Your task to perform on an android device: Open the calendar app, open the side menu, and click the "Day" option Image 0: 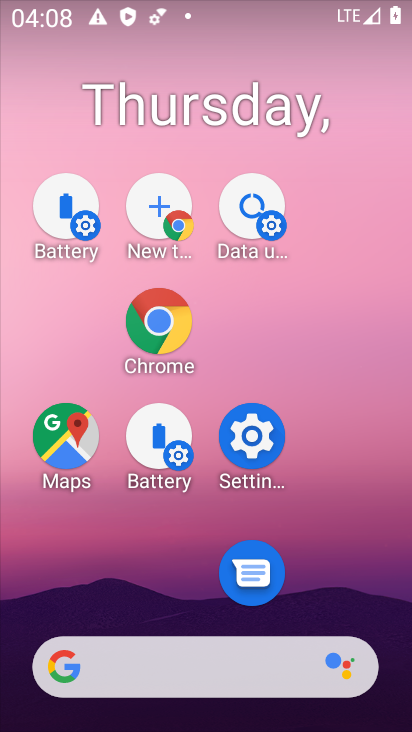
Step 0: drag from (280, 642) to (221, 98)
Your task to perform on an android device: Open the calendar app, open the side menu, and click the "Day" option Image 1: 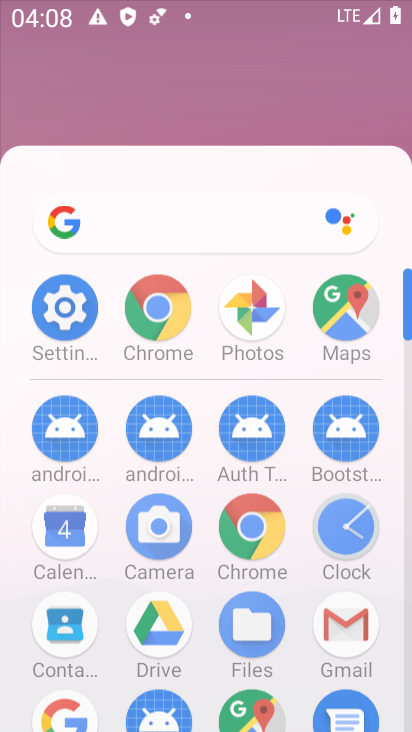
Step 1: drag from (269, 536) to (255, 117)
Your task to perform on an android device: Open the calendar app, open the side menu, and click the "Day" option Image 2: 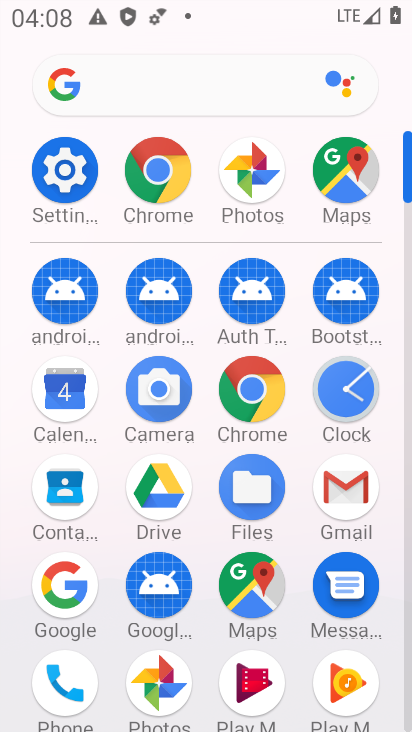
Step 2: drag from (296, 542) to (287, 190)
Your task to perform on an android device: Open the calendar app, open the side menu, and click the "Day" option Image 3: 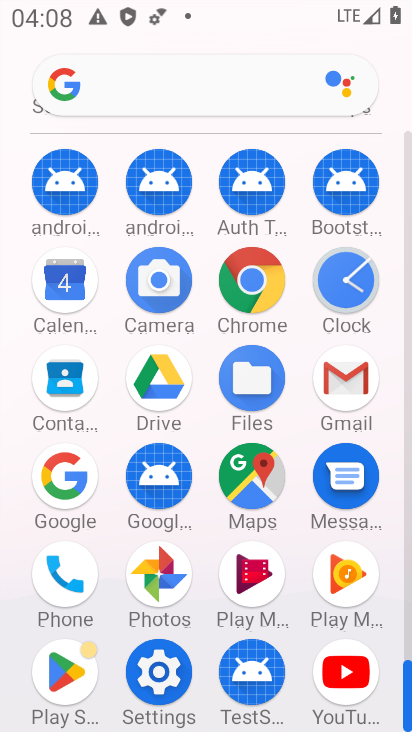
Step 3: click (63, 291)
Your task to perform on an android device: Open the calendar app, open the side menu, and click the "Day" option Image 4: 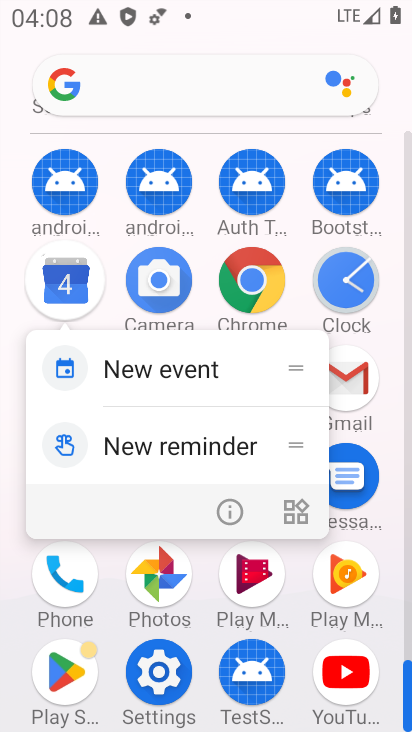
Step 4: click (63, 291)
Your task to perform on an android device: Open the calendar app, open the side menu, and click the "Day" option Image 5: 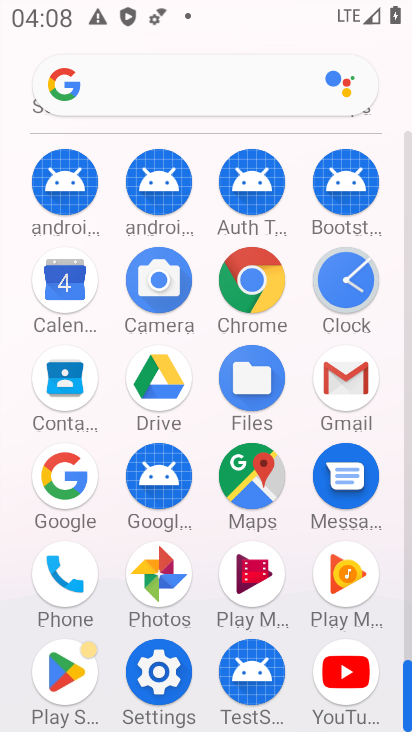
Step 5: click (63, 291)
Your task to perform on an android device: Open the calendar app, open the side menu, and click the "Day" option Image 6: 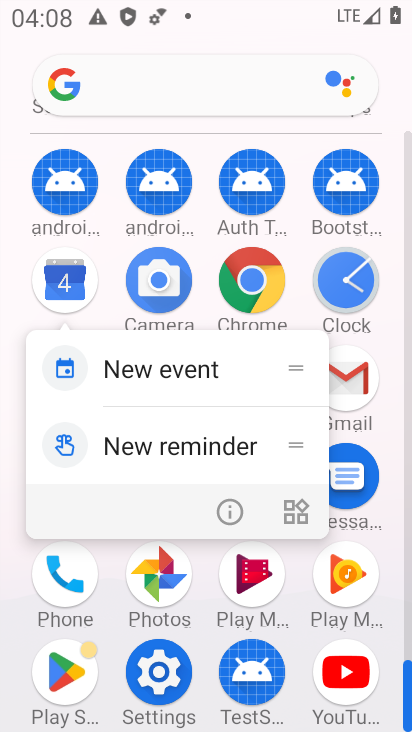
Step 6: click (62, 290)
Your task to perform on an android device: Open the calendar app, open the side menu, and click the "Day" option Image 7: 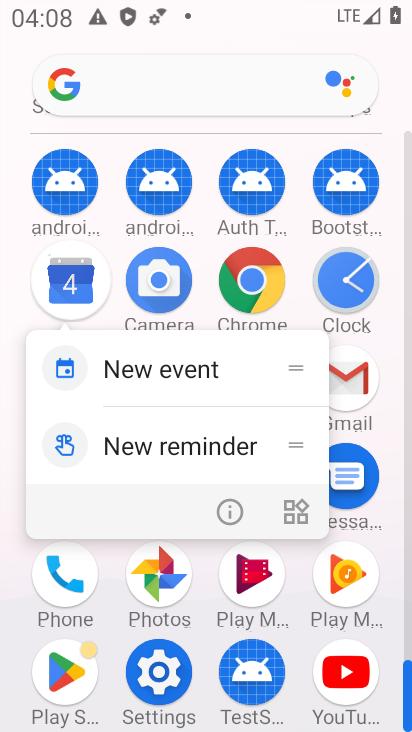
Step 7: click (68, 290)
Your task to perform on an android device: Open the calendar app, open the side menu, and click the "Day" option Image 8: 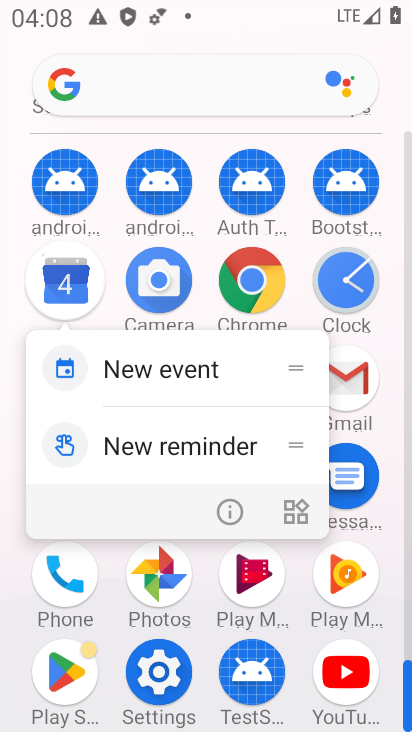
Step 8: click (69, 291)
Your task to perform on an android device: Open the calendar app, open the side menu, and click the "Day" option Image 9: 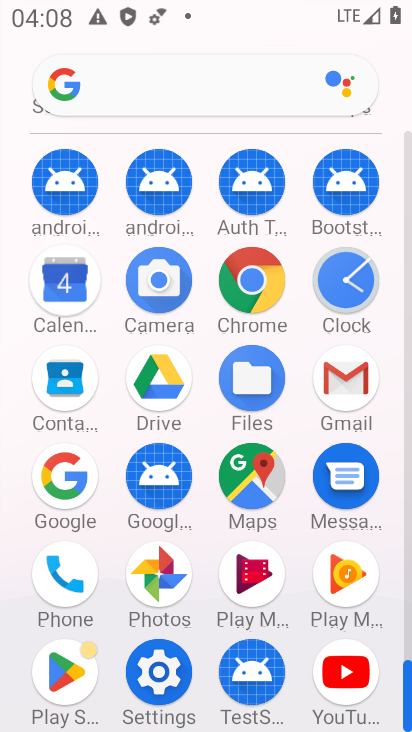
Step 9: click (69, 291)
Your task to perform on an android device: Open the calendar app, open the side menu, and click the "Day" option Image 10: 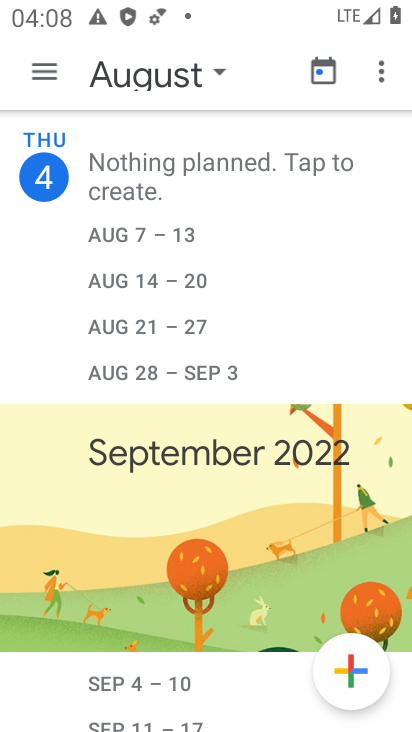
Step 10: click (86, 270)
Your task to perform on an android device: Open the calendar app, open the side menu, and click the "Day" option Image 11: 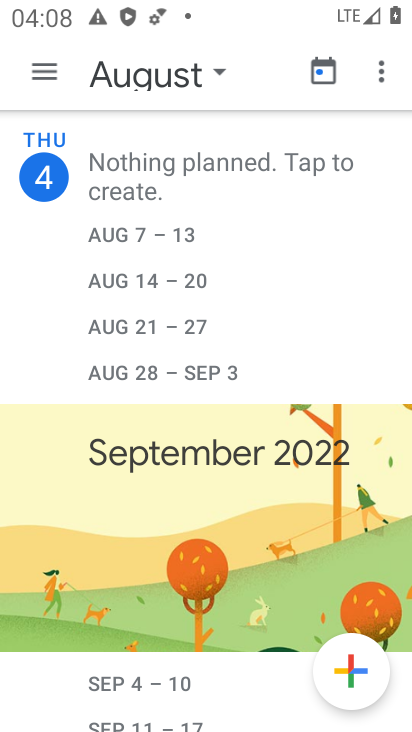
Step 11: click (39, 68)
Your task to perform on an android device: Open the calendar app, open the side menu, and click the "Day" option Image 12: 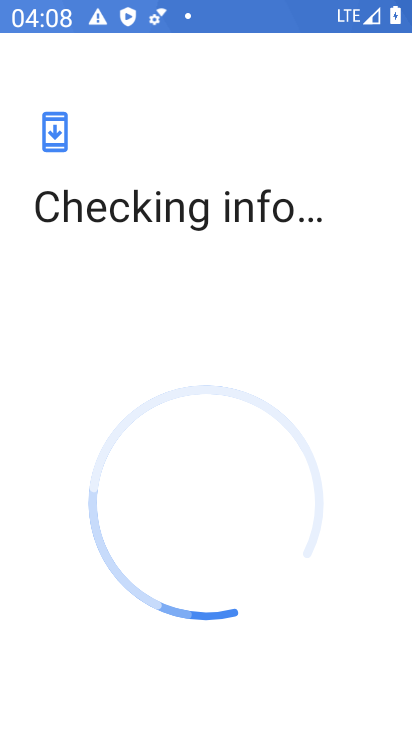
Step 12: press back button
Your task to perform on an android device: Open the calendar app, open the side menu, and click the "Day" option Image 13: 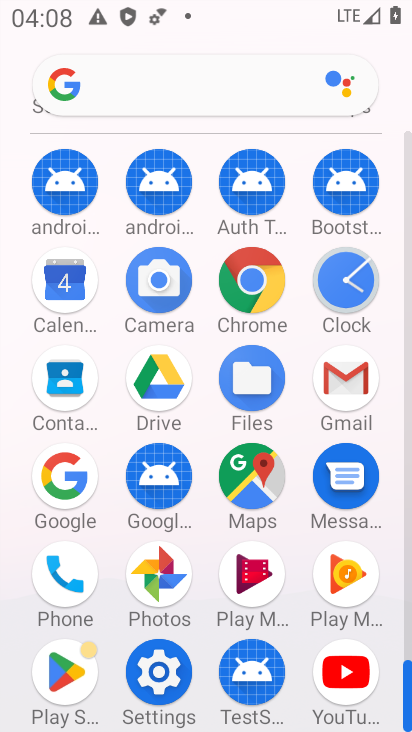
Step 13: click (64, 295)
Your task to perform on an android device: Open the calendar app, open the side menu, and click the "Day" option Image 14: 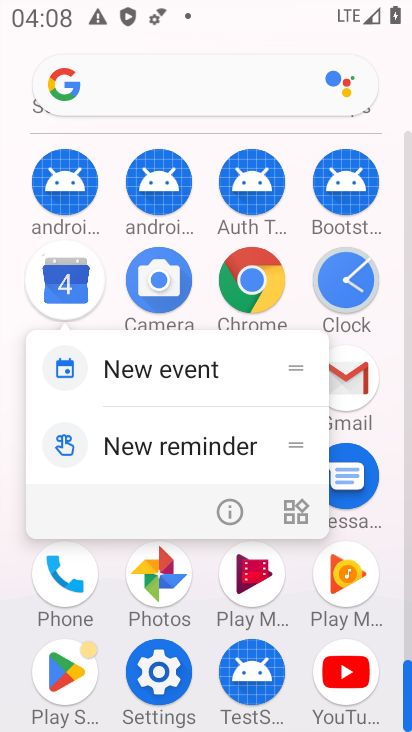
Step 14: click (64, 295)
Your task to perform on an android device: Open the calendar app, open the side menu, and click the "Day" option Image 15: 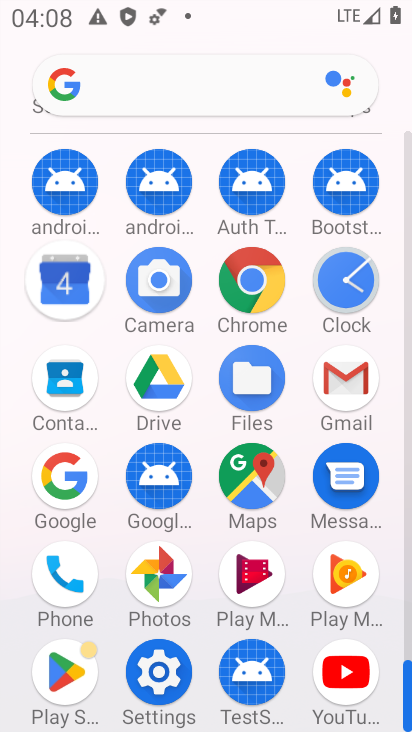
Step 15: click (64, 295)
Your task to perform on an android device: Open the calendar app, open the side menu, and click the "Day" option Image 16: 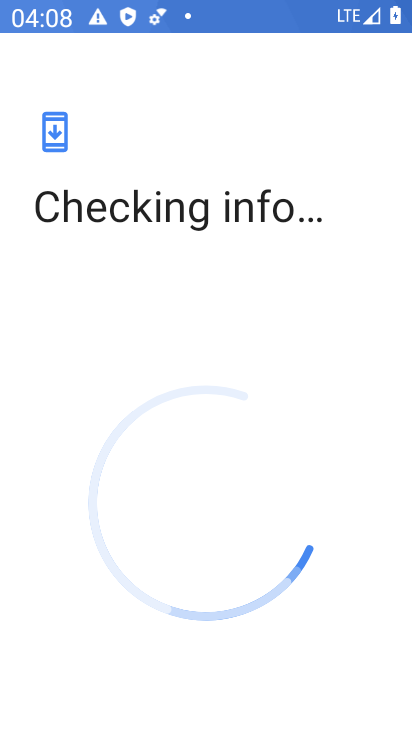
Step 16: press back button
Your task to perform on an android device: Open the calendar app, open the side menu, and click the "Day" option Image 17: 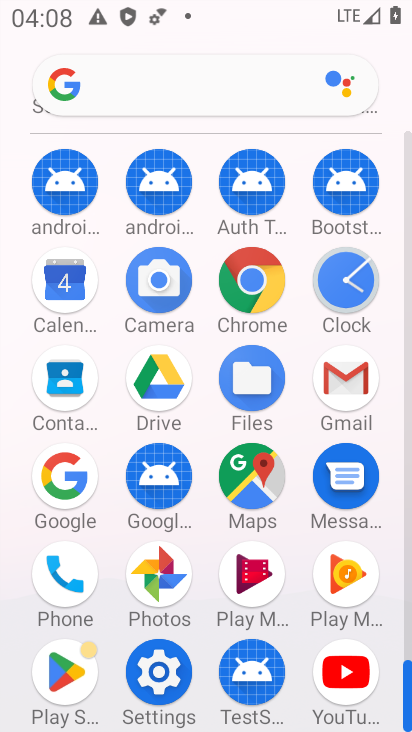
Step 17: click (59, 287)
Your task to perform on an android device: Open the calendar app, open the side menu, and click the "Day" option Image 18: 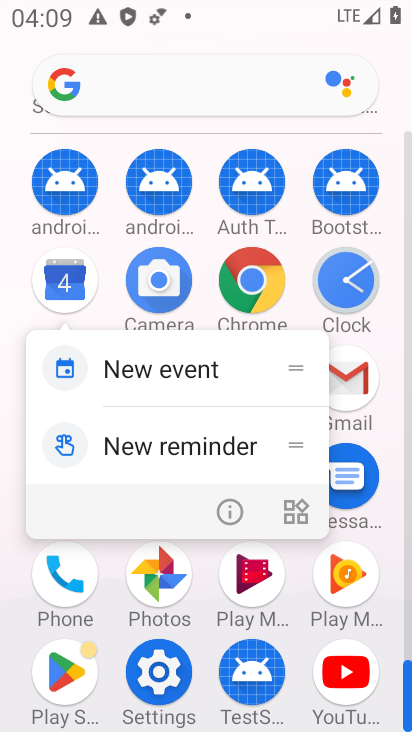
Step 18: click (70, 293)
Your task to perform on an android device: Open the calendar app, open the side menu, and click the "Day" option Image 19: 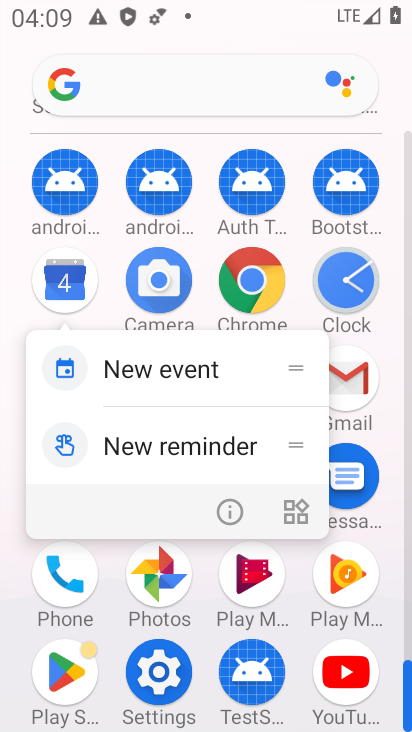
Step 19: click (67, 291)
Your task to perform on an android device: Open the calendar app, open the side menu, and click the "Day" option Image 20: 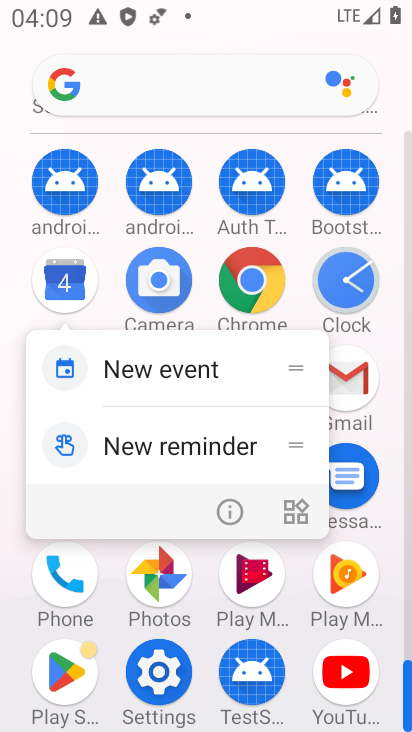
Step 20: click (67, 291)
Your task to perform on an android device: Open the calendar app, open the side menu, and click the "Day" option Image 21: 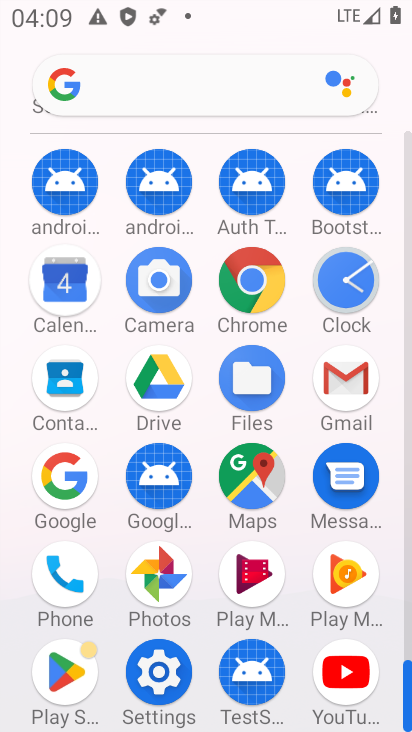
Step 21: click (59, 283)
Your task to perform on an android device: Open the calendar app, open the side menu, and click the "Day" option Image 22: 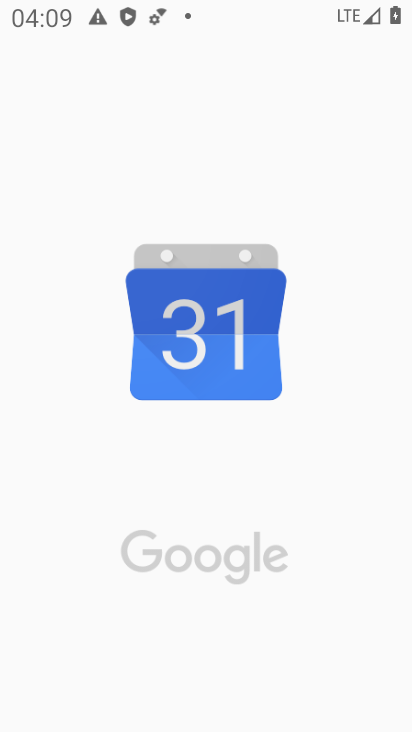
Step 22: click (57, 268)
Your task to perform on an android device: Open the calendar app, open the side menu, and click the "Day" option Image 23: 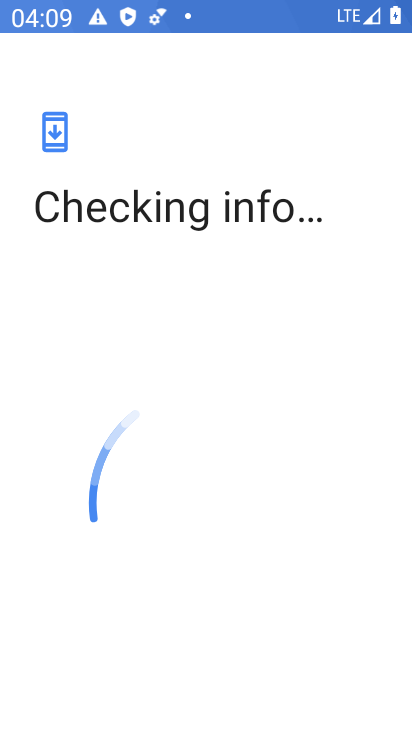
Step 23: task complete